Your task to perform on an android device: change the upload size in google photos Image 0: 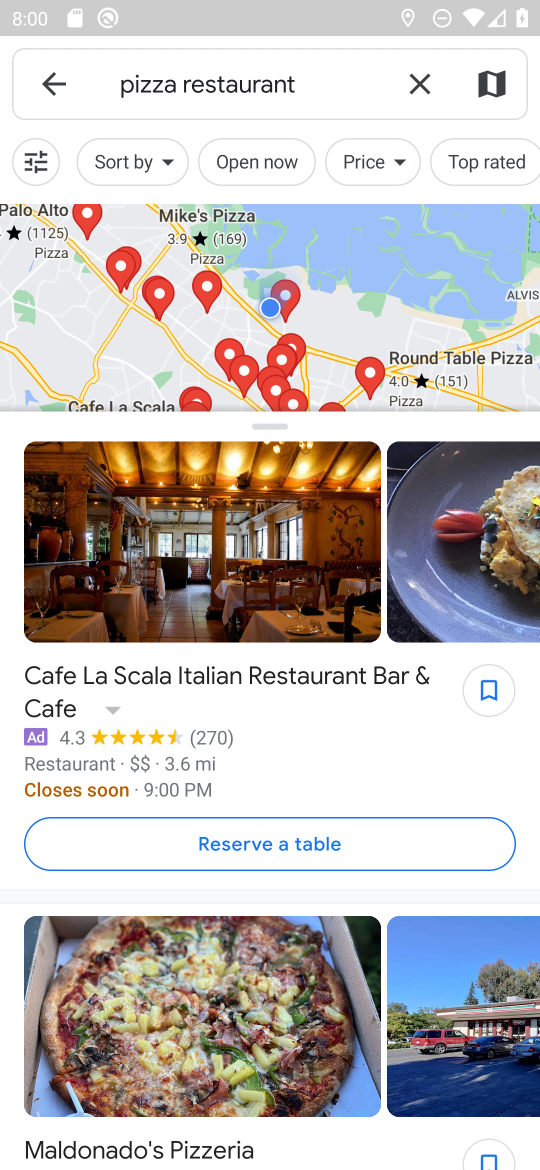
Step 0: press home button
Your task to perform on an android device: change the upload size in google photos Image 1: 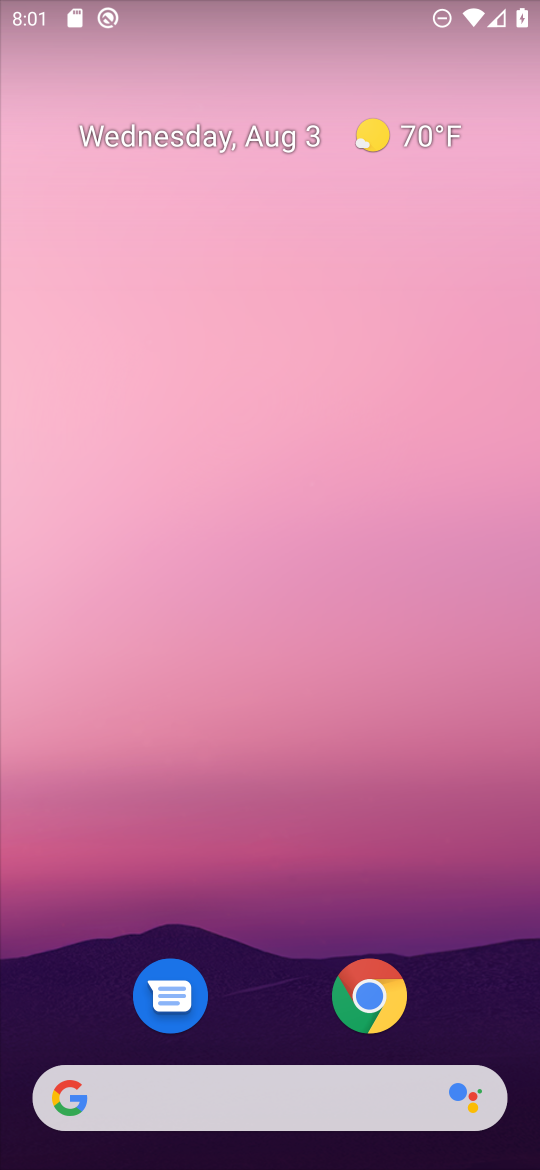
Step 1: drag from (299, 886) to (256, 0)
Your task to perform on an android device: change the upload size in google photos Image 2: 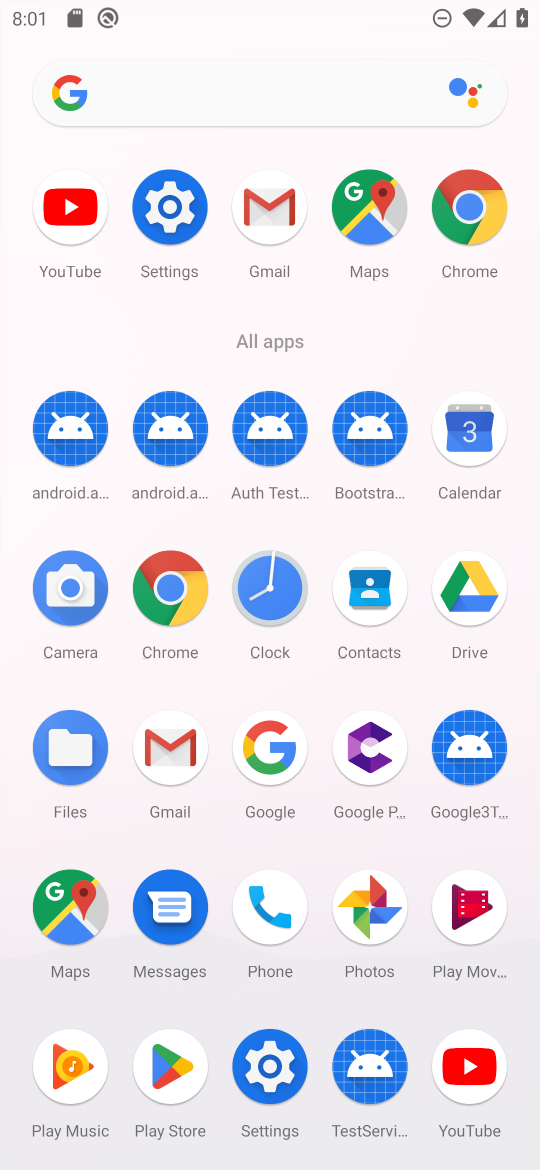
Step 2: click (375, 907)
Your task to perform on an android device: change the upload size in google photos Image 3: 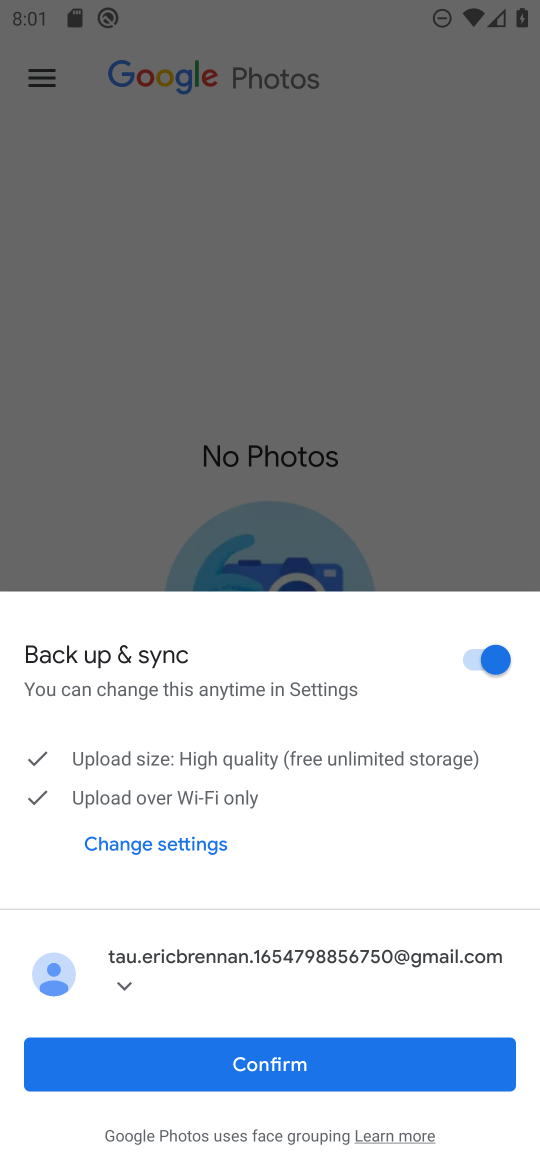
Step 3: click (397, 1069)
Your task to perform on an android device: change the upload size in google photos Image 4: 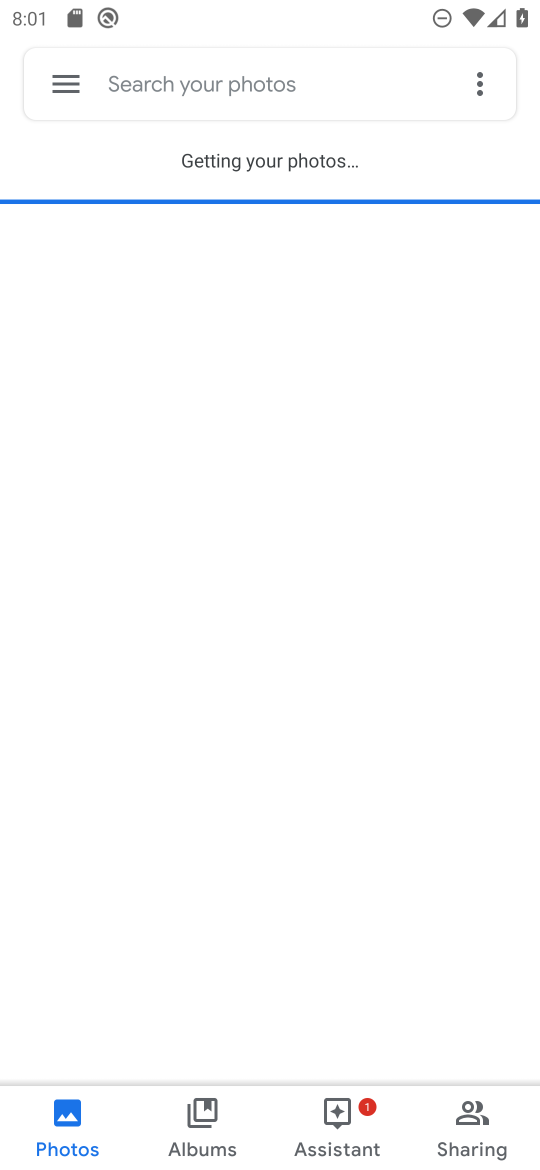
Step 4: click (62, 71)
Your task to perform on an android device: change the upload size in google photos Image 5: 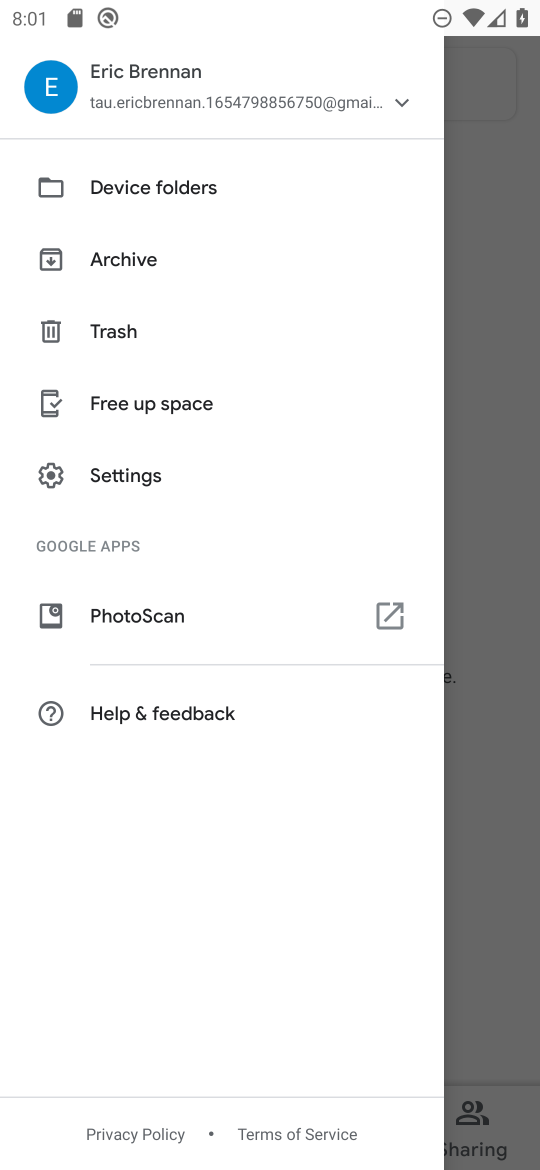
Step 5: click (104, 466)
Your task to perform on an android device: change the upload size in google photos Image 6: 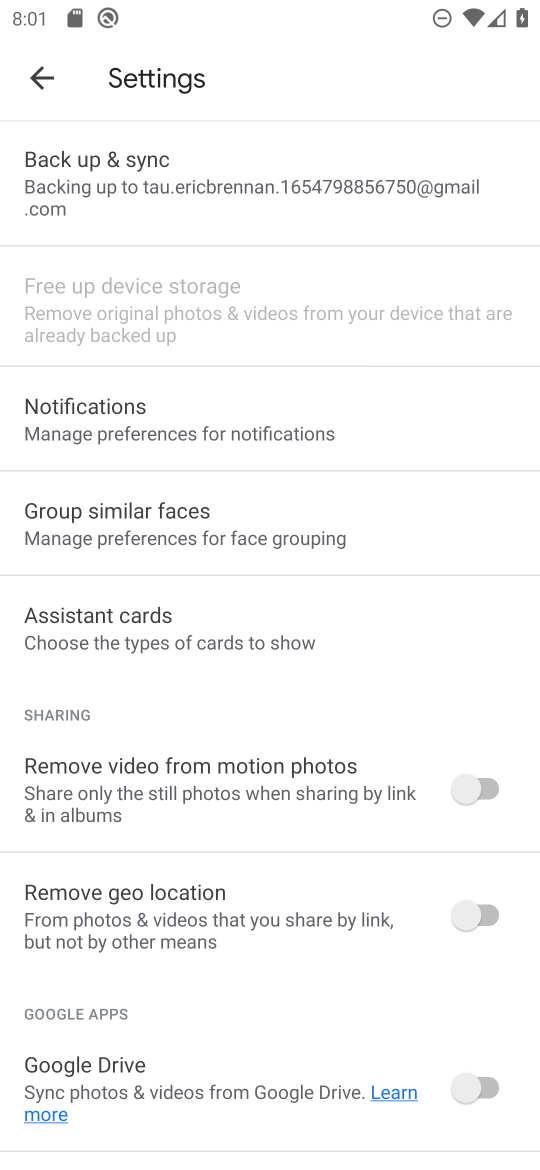
Step 6: click (179, 167)
Your task to perform on an android device: change the upload size in google photos Image 7: 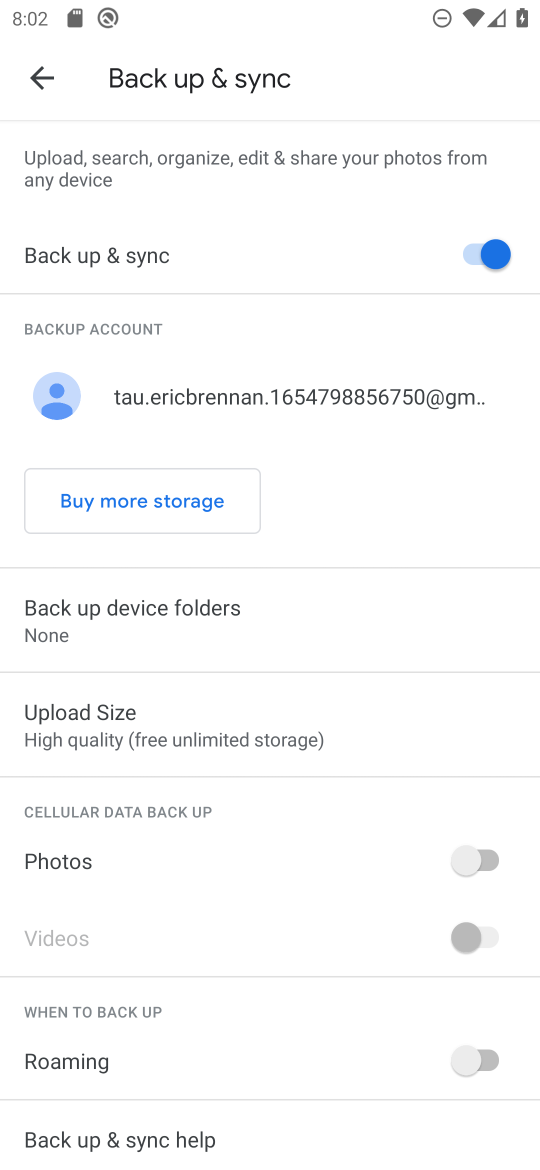
Step 7: click (174, 720)
Your task to perform on an android device: change the upload size in google photos Image 8: 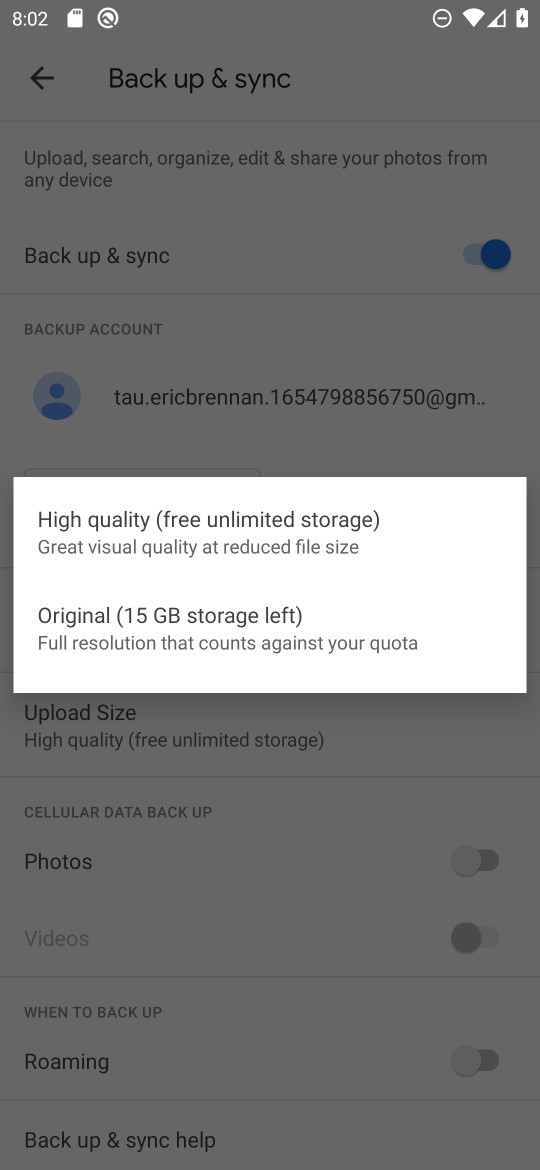
Step 8: click (191, 638)
Your task to perform on an android device: change the upload size in google photos Image 9: 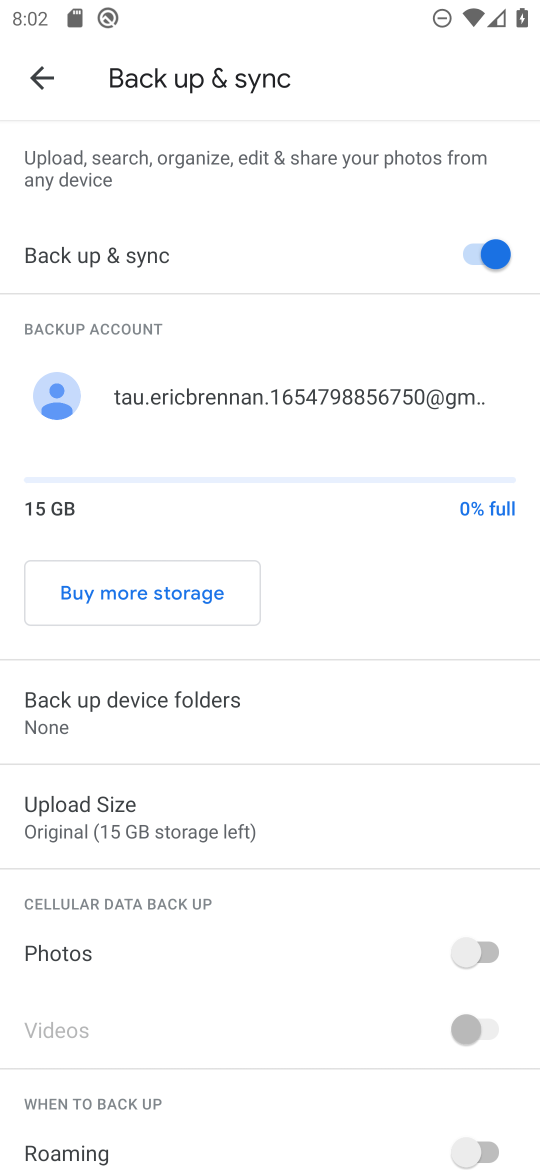
Step 9: task complete